Your task to perform on an android device: Open calendar and show me the first week of next month Image 0: 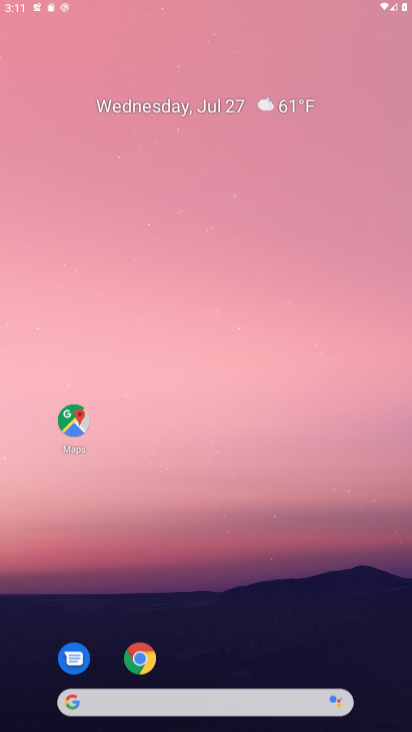
Step 0: drag from (178, 436) to (179, 157)
Your task to perform on an android device: Open calendar and show me the first week of next month Image 1: 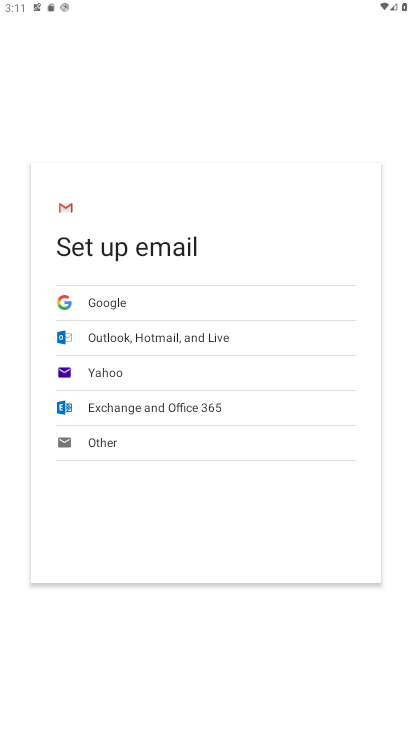
Step 1: press home button
Your task to perform on an android device: Open calendar and show me the first week of next month Image 2: 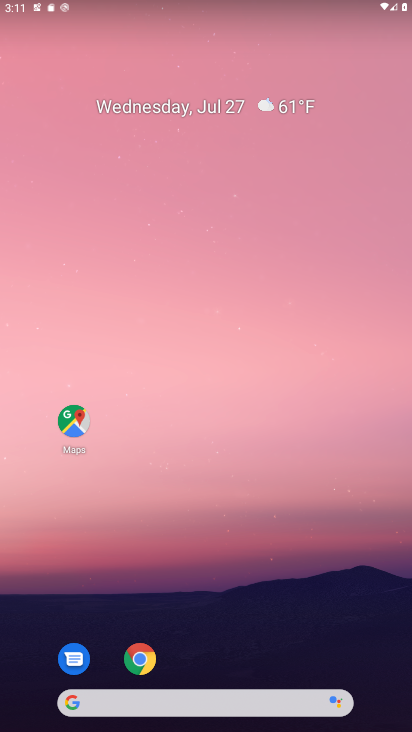
Step 2: drag from (186, 695) to (116, 72)
Your task to perform on an android device: Open calendar and show me the first week of next month Image 3: 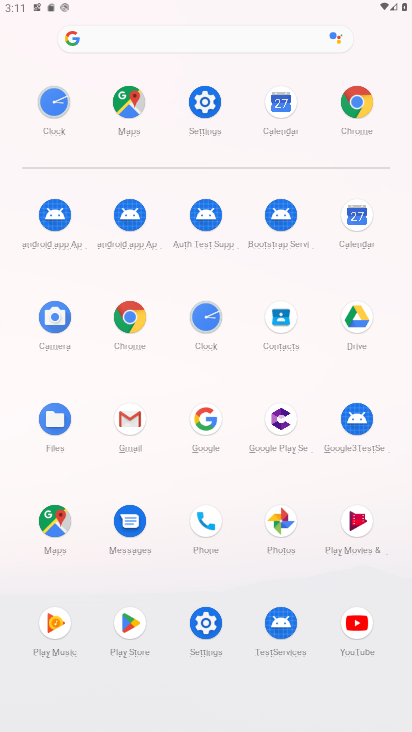
Step 3: click (282, 106)
Your task to perform on an android device: Open calendar and show me the first week of next month Image 4: 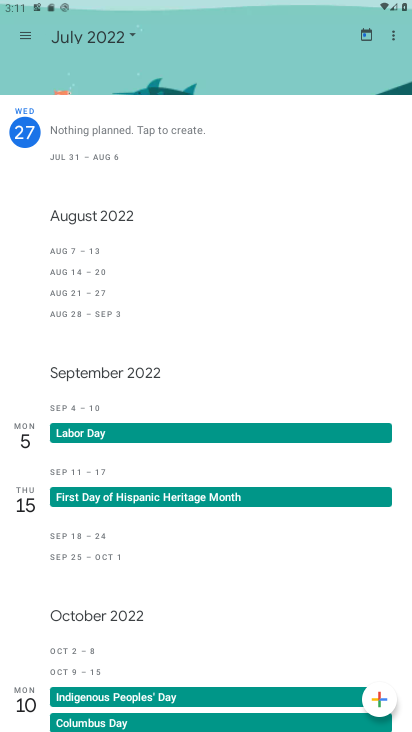
Step 4: click (25, 35)
Your task to perform on an android device: Open calendar and show me the first week of next month Image 5: 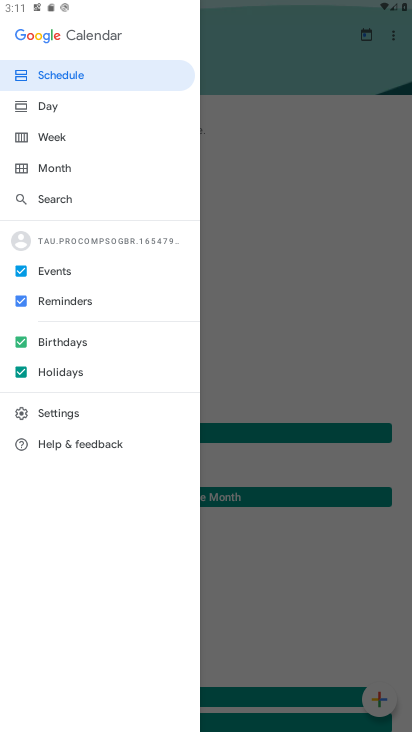
Step 5: click (70, 174)
Your task to perform on an android device: Open calendar and show me the first week of next month Image 6: 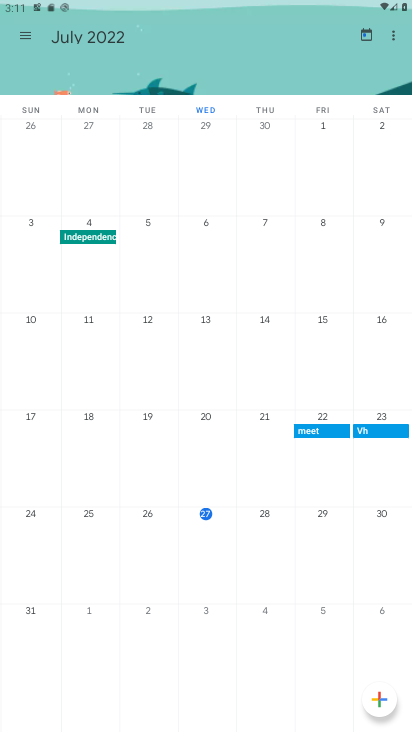
Step 6: task complete